Your task to perform on an android device: Go to display settings Image 0: 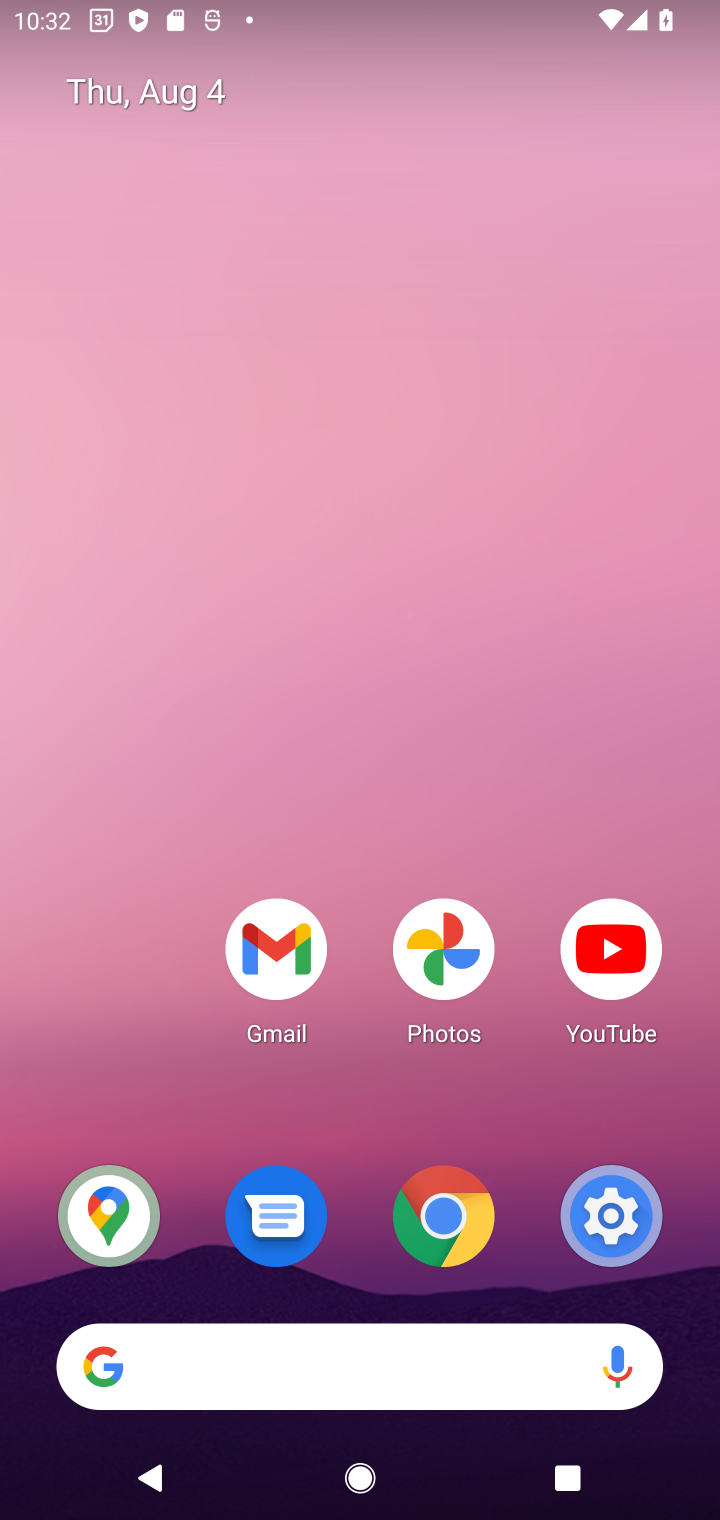
Step 0: drag from (281, 1367) to (363, 345)
Your task to perform on an android device: Go to display settings Image 1: 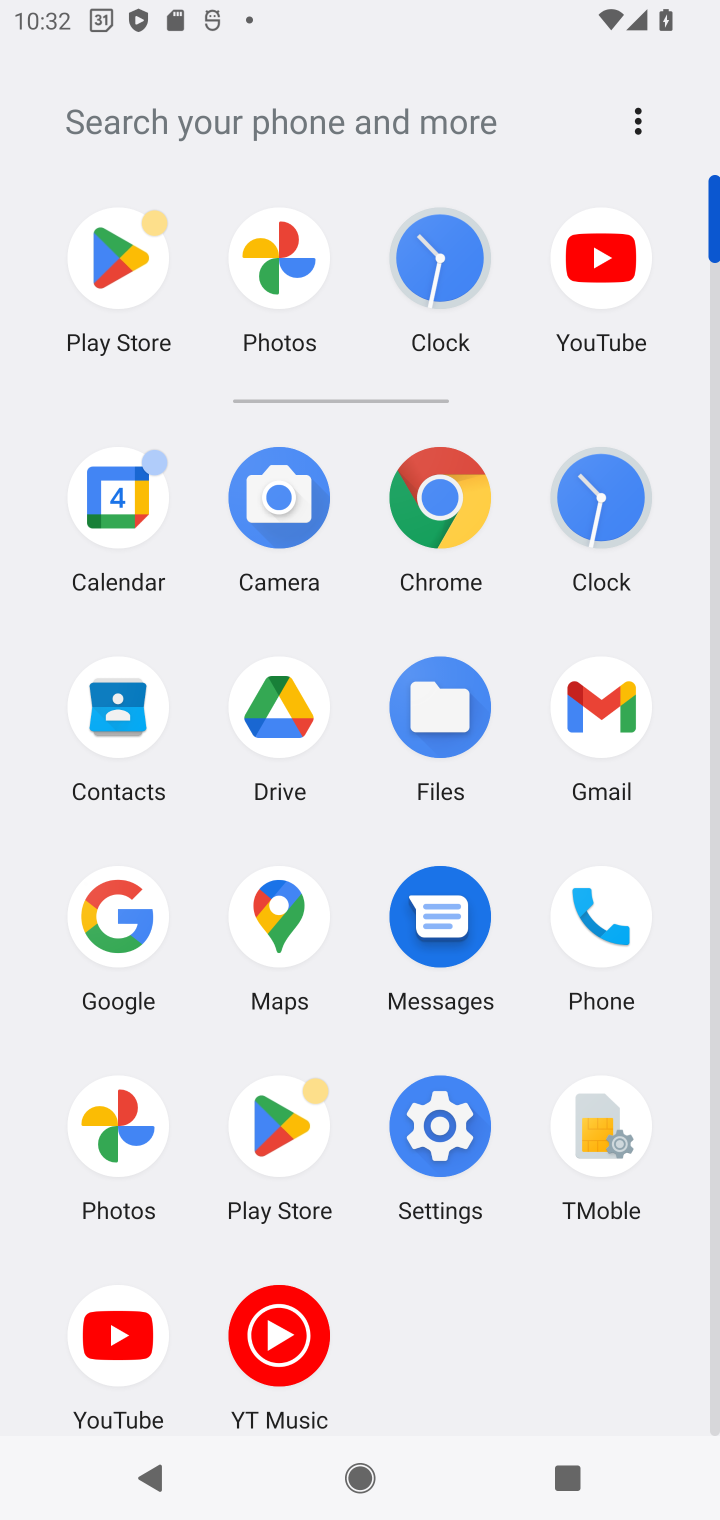
Step 1: click (439, 1133)
Your task to perform on an android device: Go to display settings Image 2: 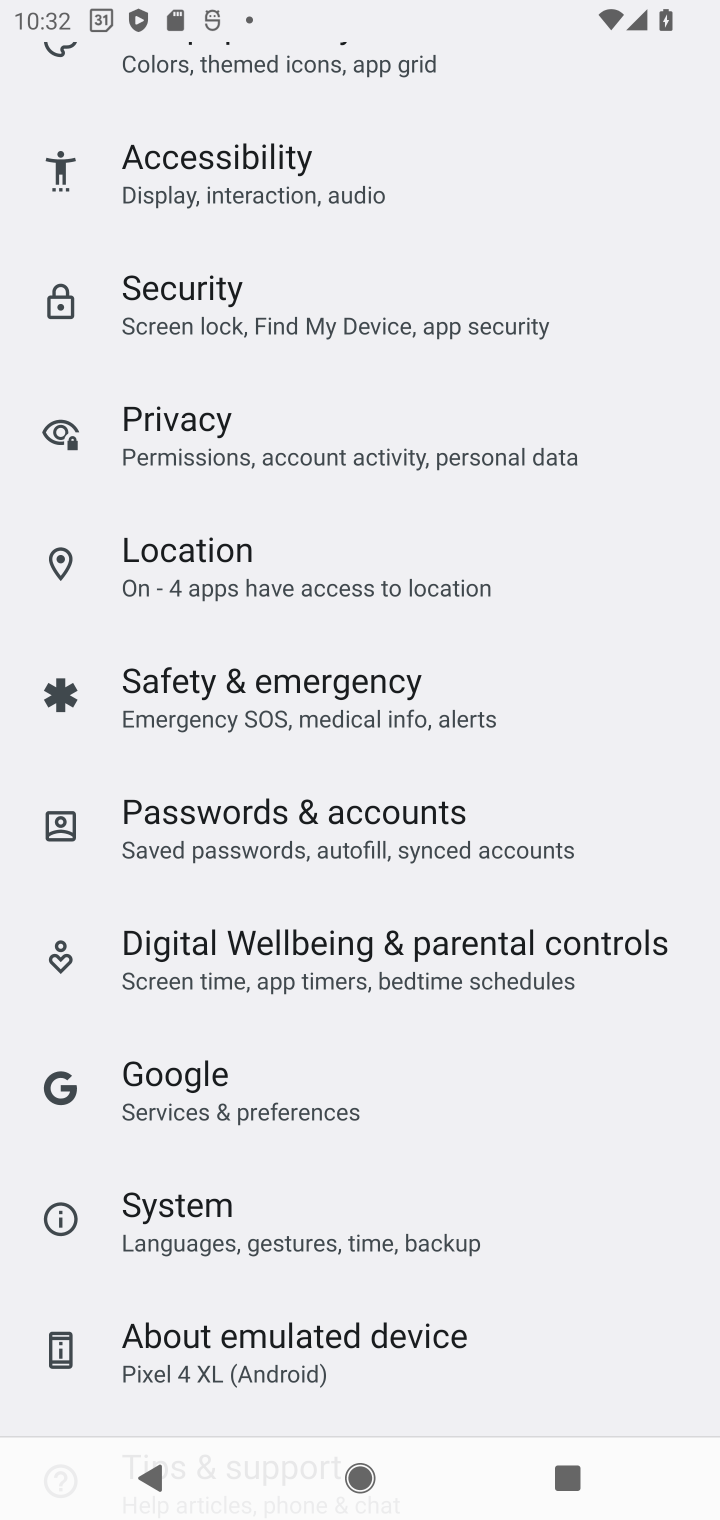
Step 2: drag from (401, 390) to (492, 990)
Your task to perform on an android device: Go to display settings Image 3: 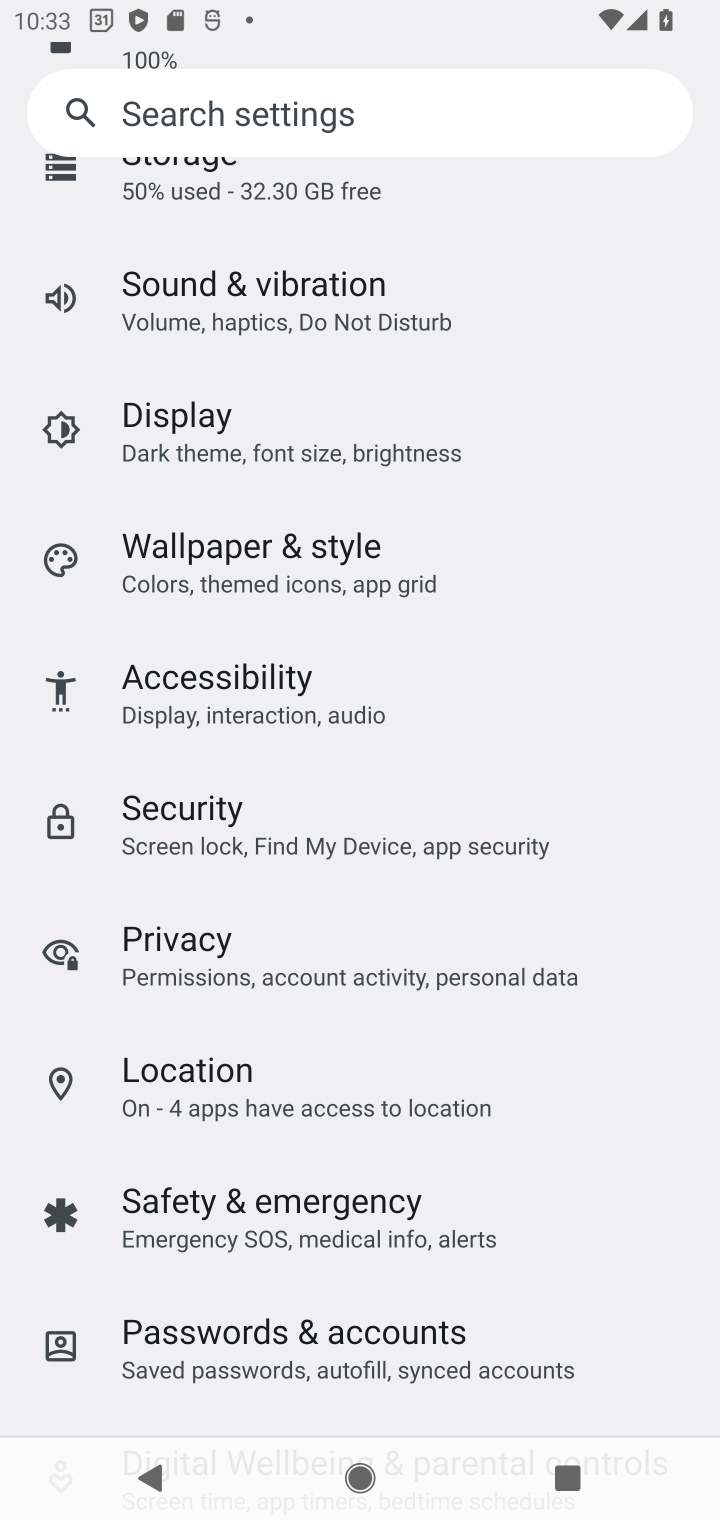
Step 3: click (299, 453)
Your task to perform on an android device: Go to display settings Image 4: 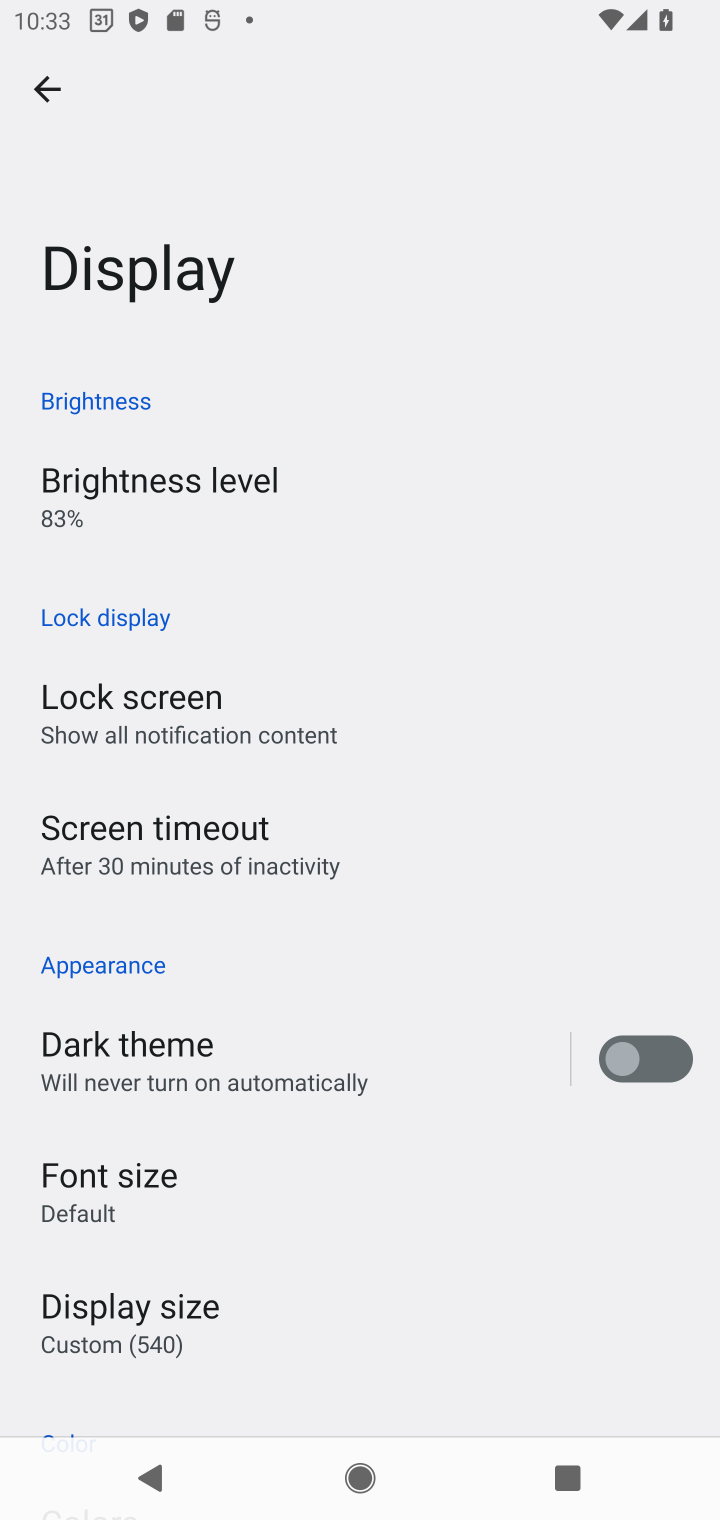
Step 4: task complete